Your task to perform on an android device: Search for "custom wallet" on Etsy. Image 0: 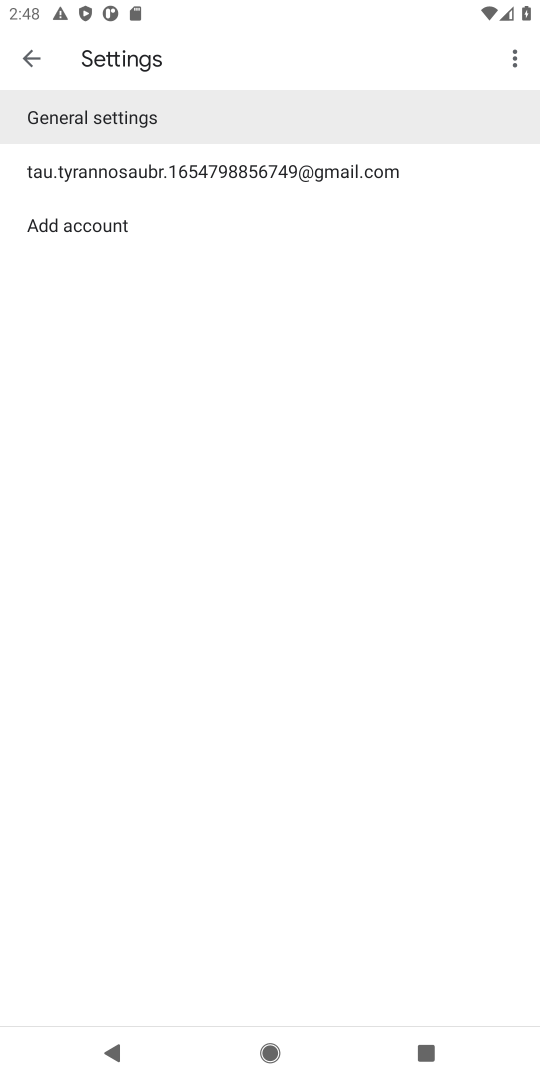
Step 0: press home button
Your task to perform on an android device: Search for "custom wallet" on Etsy. Image 1: 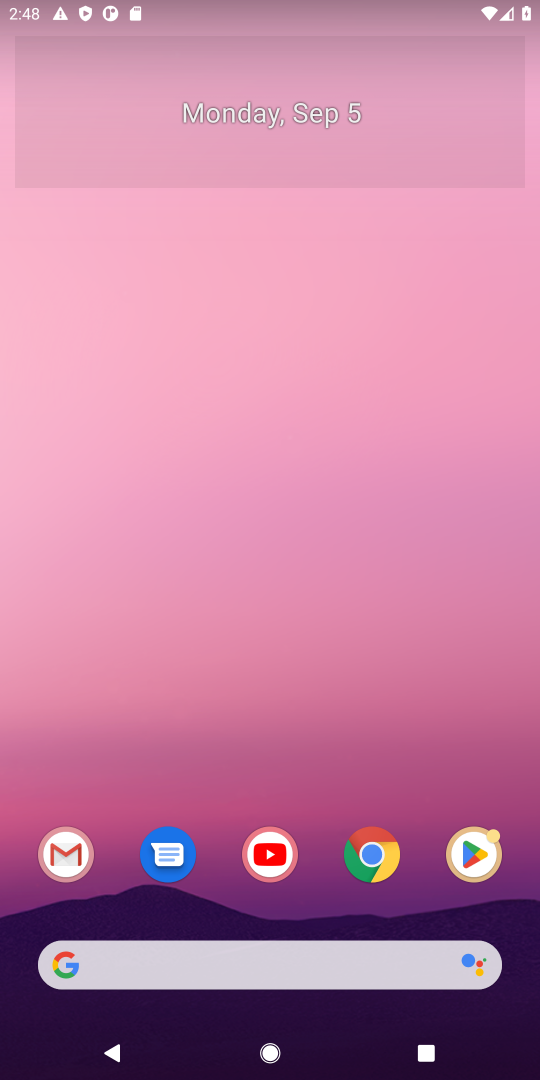
Step 1: click (378, 957)
Your task to perform on an android device: Search for "custom wallet" on Etsy. Image 2: 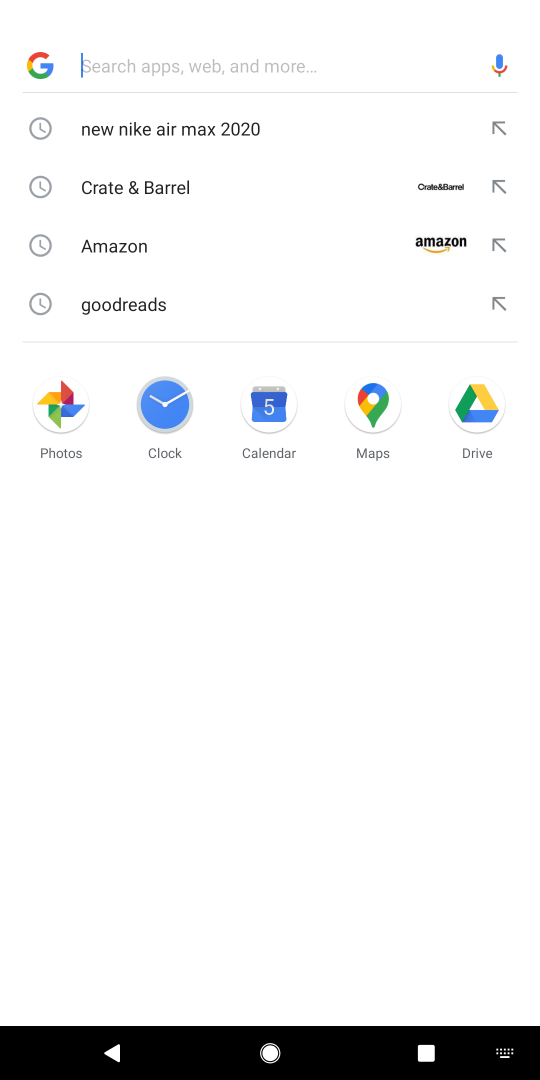
Step 2: type "etsy"
Your task to perform on an android device: Search for "custom wallet" on Etsy. Image 3: 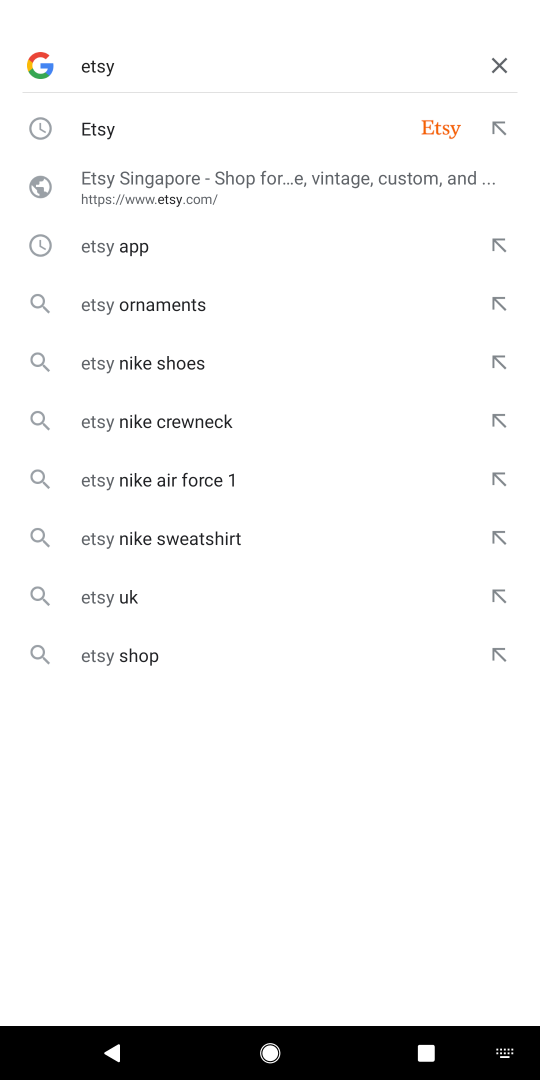
Step 3: press enter
Your task to perform on an android device: Search for "custom wallet" on Etsy. Image 4: 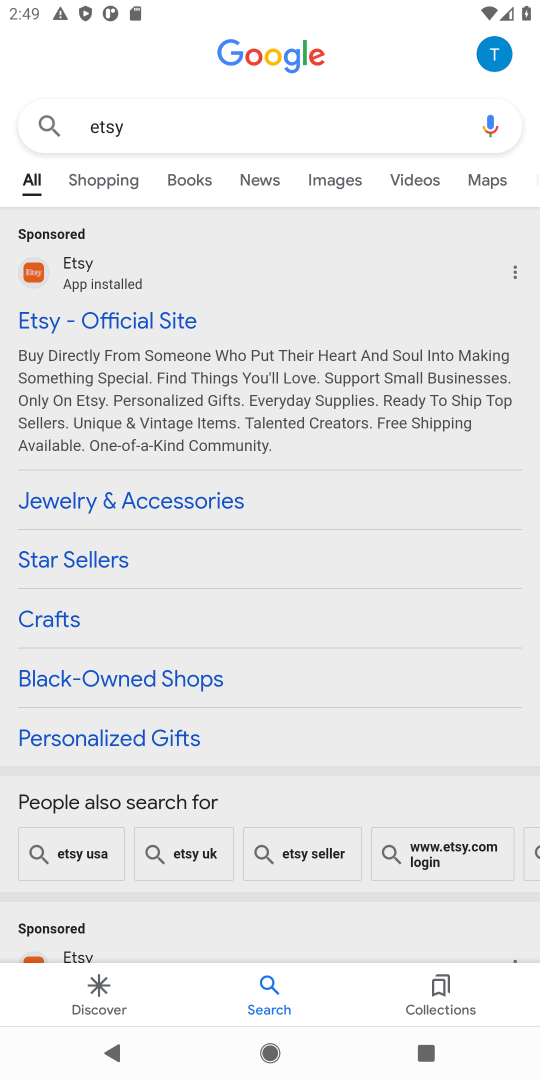
Step 4: click (174, 328)
Your task to perform on an android device: Search for "custom wallet" on Etsy. Image 5: 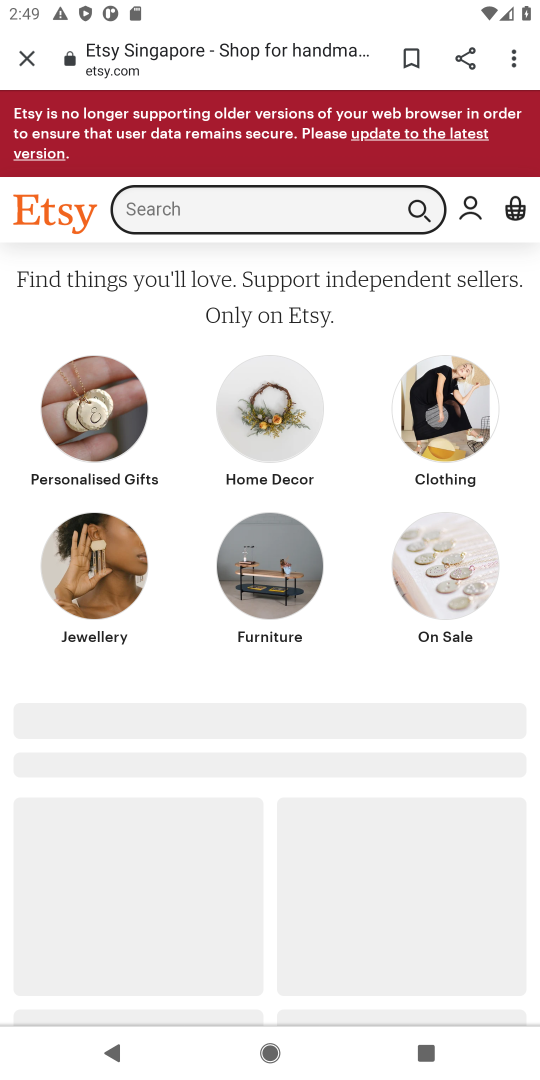
Step 5: click (222, 202)
Your task to perform on an android device: Search for "custom wallet" on Etsy. Image 6: 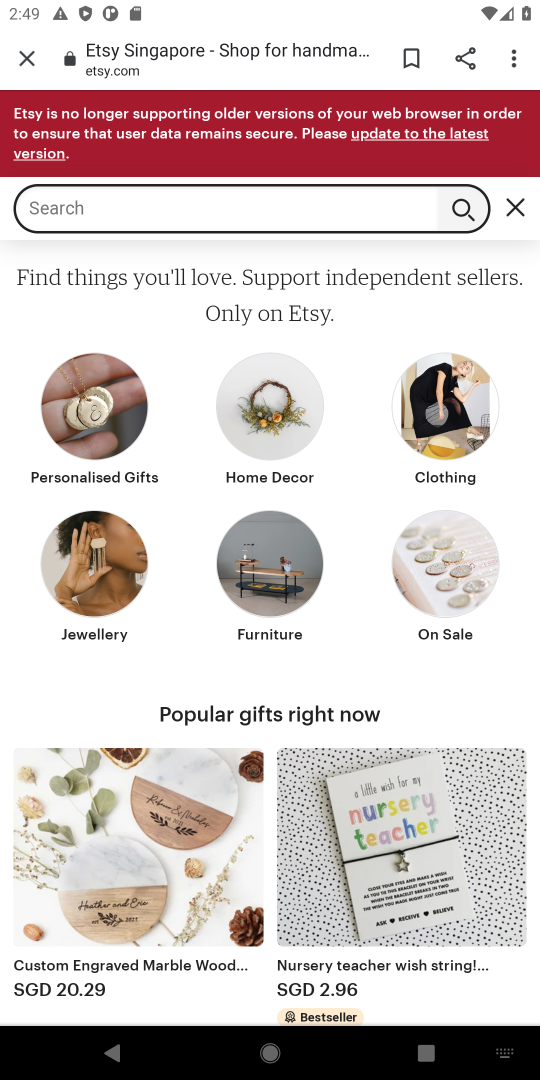
Step 6: press enter
Your task to perform on an android device: Search for "custom wallet" on Etsy. Image 7: 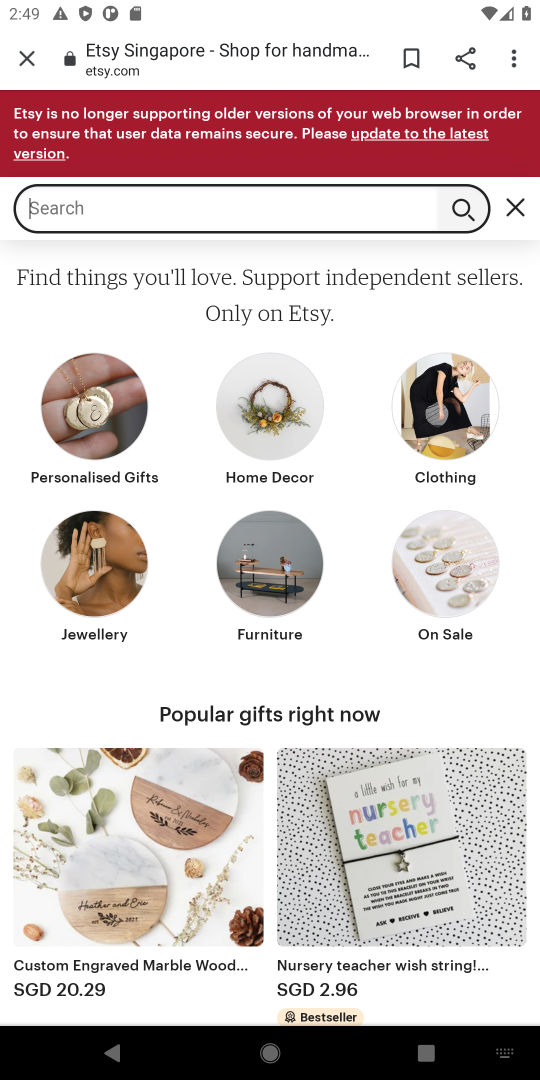
Step 7: type "custom wallet"
Your task to perform on an android device: Search for "custom wallet" on Etsy. Image 8: 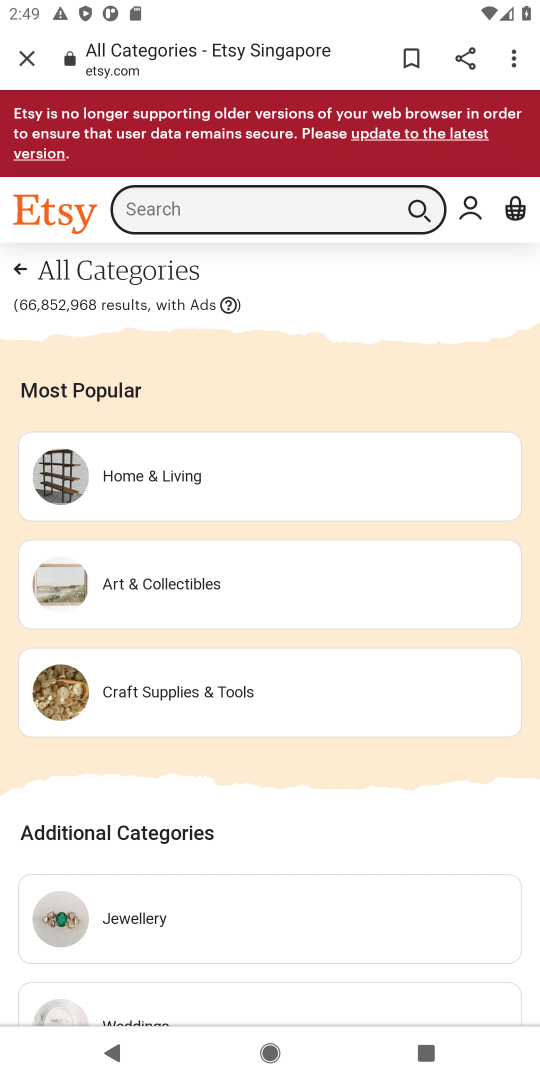
Step 8: click (243, 205)
Your task to perform on an android device: Search for "custom wallet" on Etsy. Image 9: 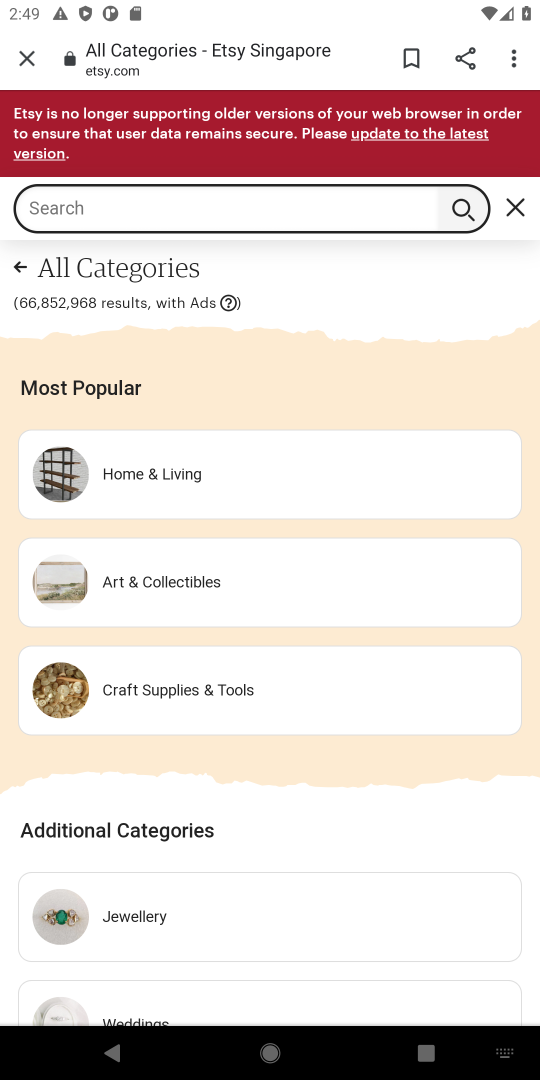
Step 9: press enter
Your task to perform on an android device: Search for "custom wallet" on Etsy. Image 10: 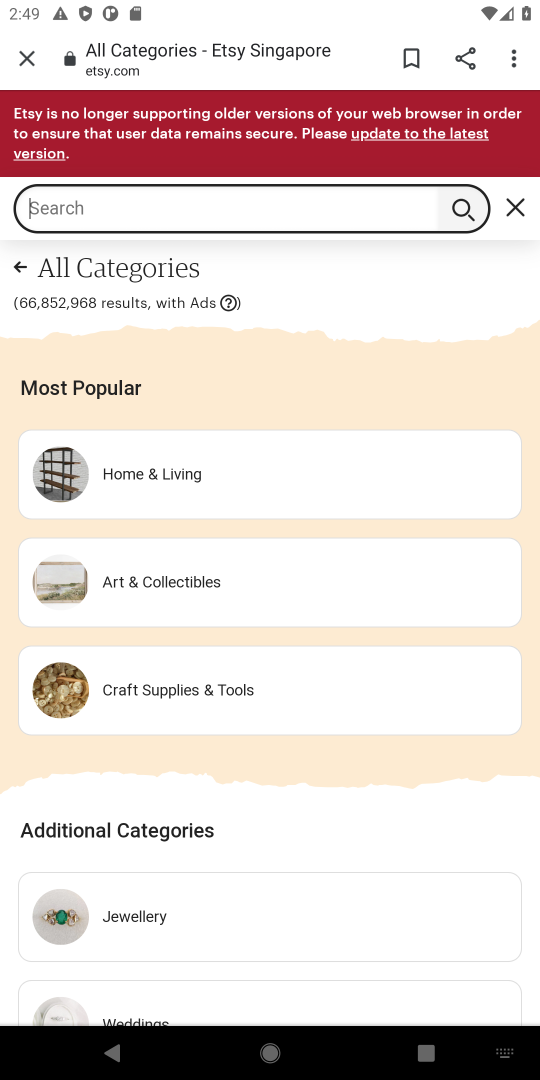
Step 10: type "custom wallet"
Your task to perform on an android device: Search for "custom wallet" on Etsy. Image 11: 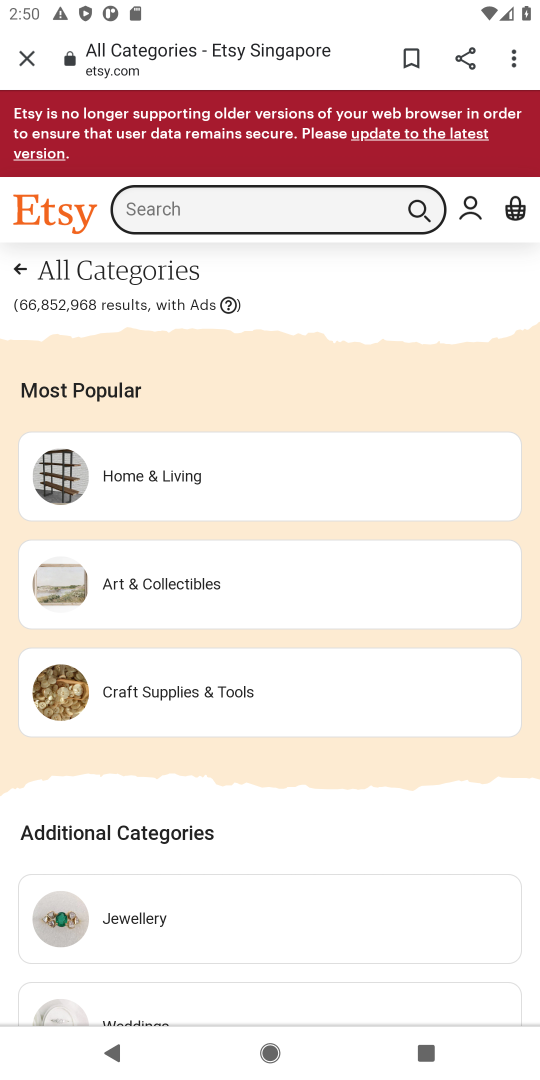
Step 11: click (207, 208)
Your task to perform on an android device: Search for "custom wallet" on Etsy. Image 12: 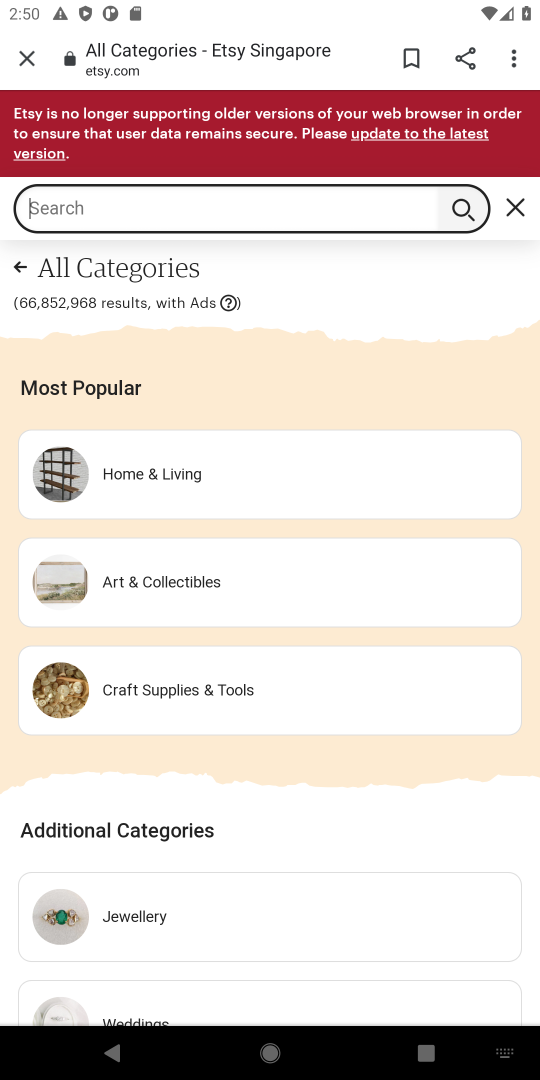
Step 12: type "custom wallet"
Your task to perform on an android device: Search for "custom wallet" on Etsy. Image 13: 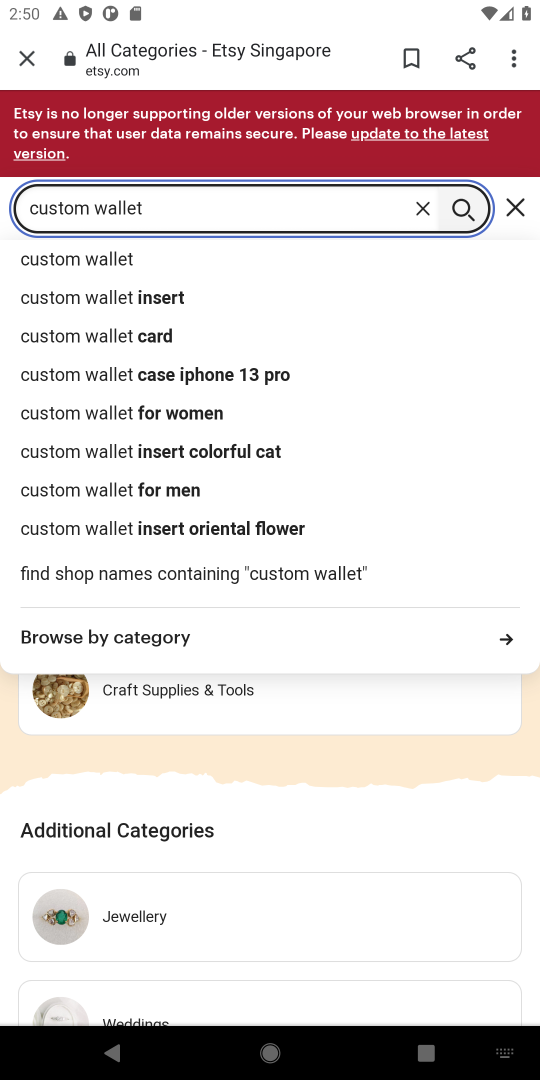
Step 13: click (117, 258)
Your task to perform on an android device: Search for "custom wallet" on Etsy. Image 14: 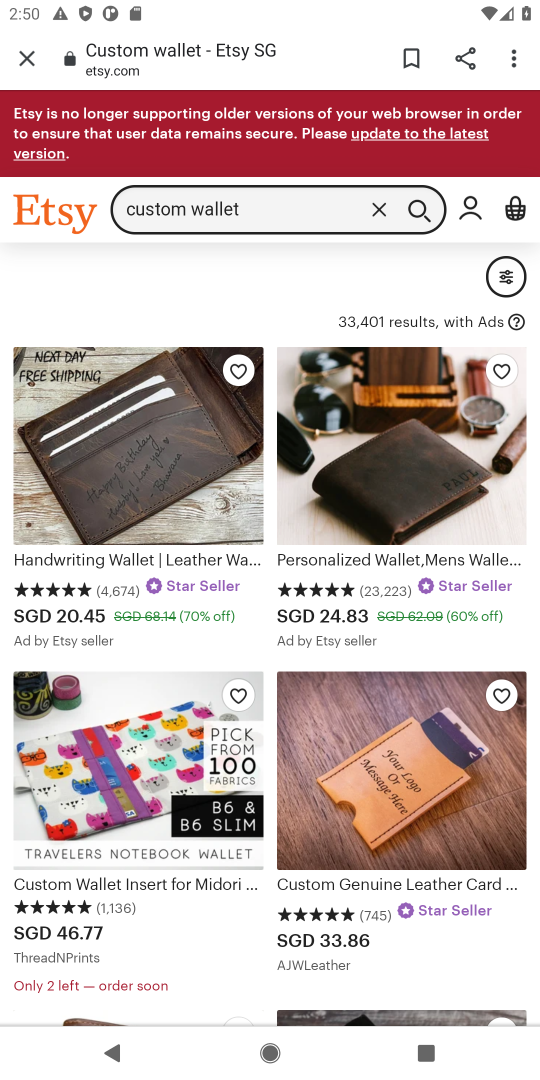
Step 14: task complete